Your task to perform on an android device: Open calendar and show me the first week of next month Image 0: 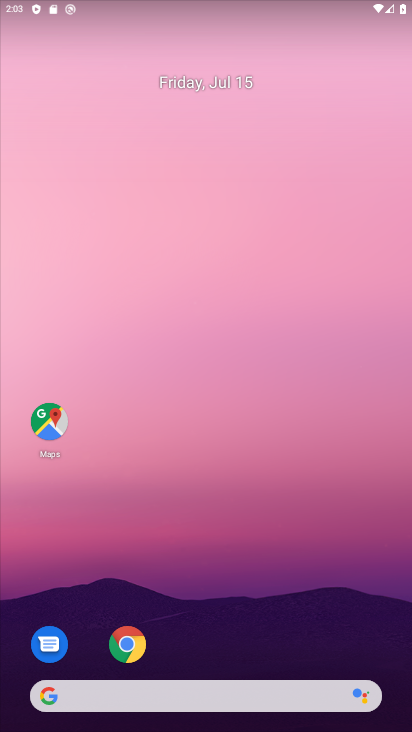
Step 0: drag from (203, 634) to (264, 21)
Your task to perform on an android device: Open calendar and show me the first week of next month Image 1: 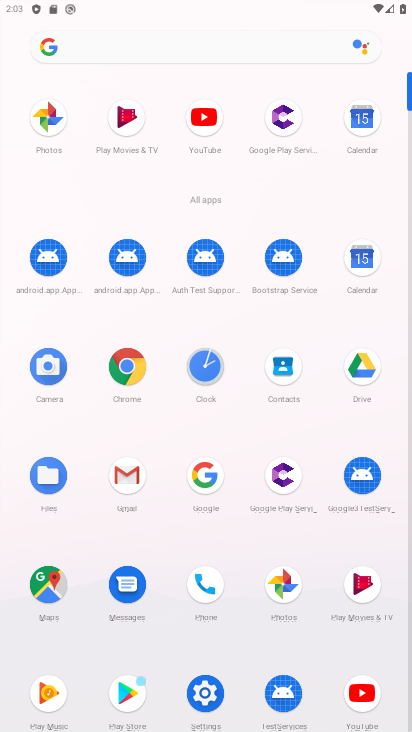
Step 1: click (356, 263)
Your task to perform on an android device: Open calendar and show me the first week of next month Image 2: 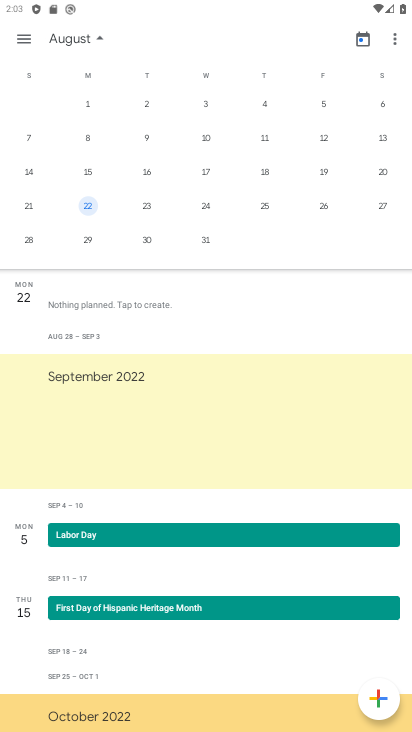
Step 2: drag from (370, 170) to (52, 123)
Your task to perform on an android device: Open calendar and show me the first week of next month Image 3: 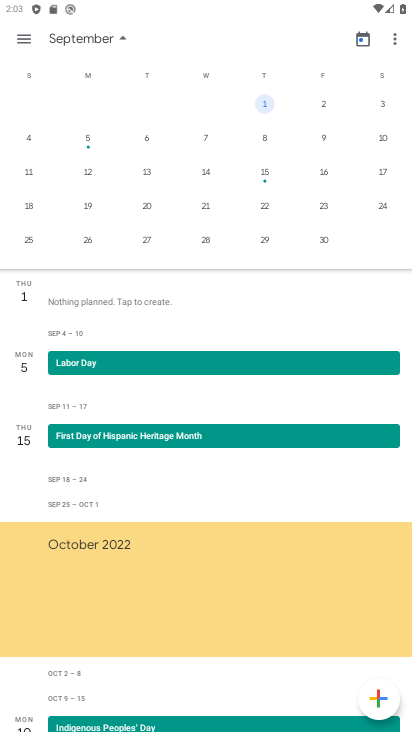
Step 3: drag from (56, 159) to (409, 171)
Your task to perform on an android device: Open calendar and show me the first week of next month Image 4: 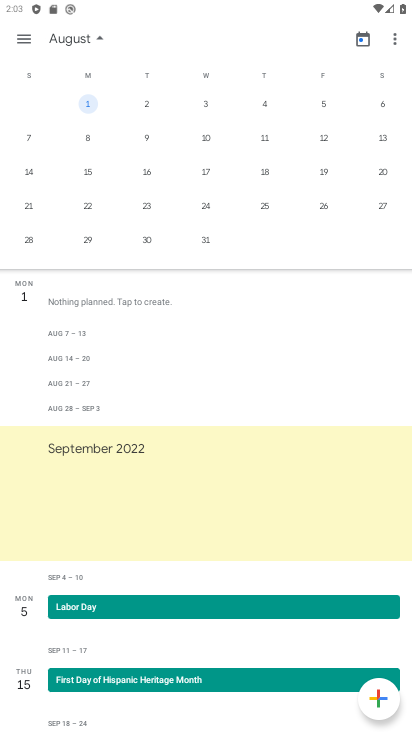
Step 4: click (92, 101)
Your task to perform on an android device: Open calendar and show me the first week of next month Image 5: 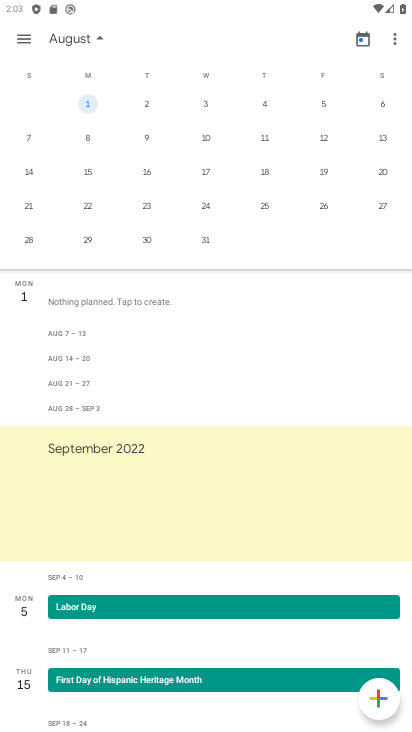
Step 5: task complete